Your task to perform on an android device: add a label to a message in the gmail app Image 0: 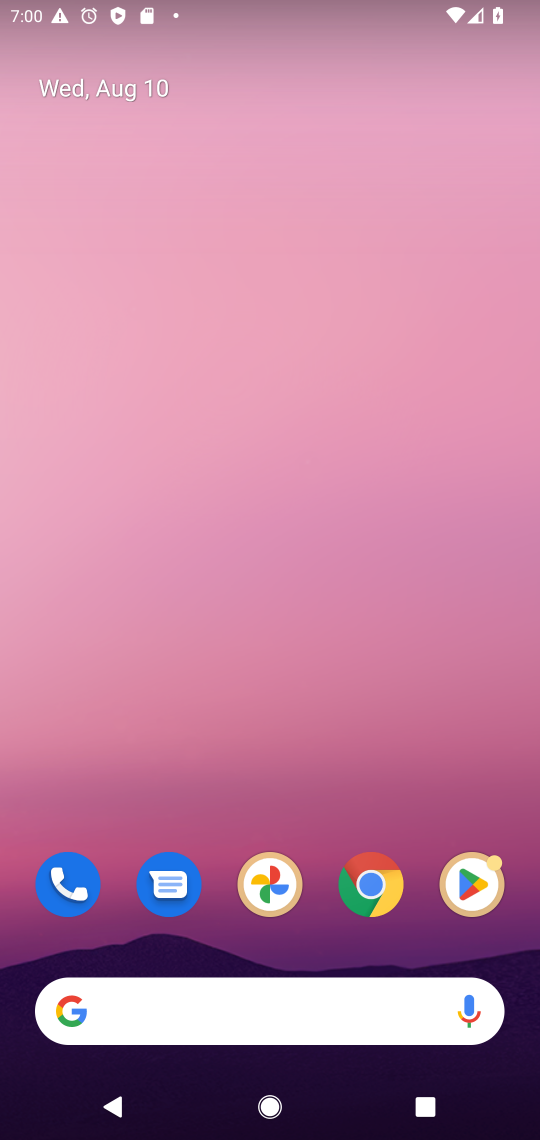
Step 0: drag from (24, 1071) to (403, 173)
Your task to perform on an android device: add a label to a message in the gmail app Image 1: 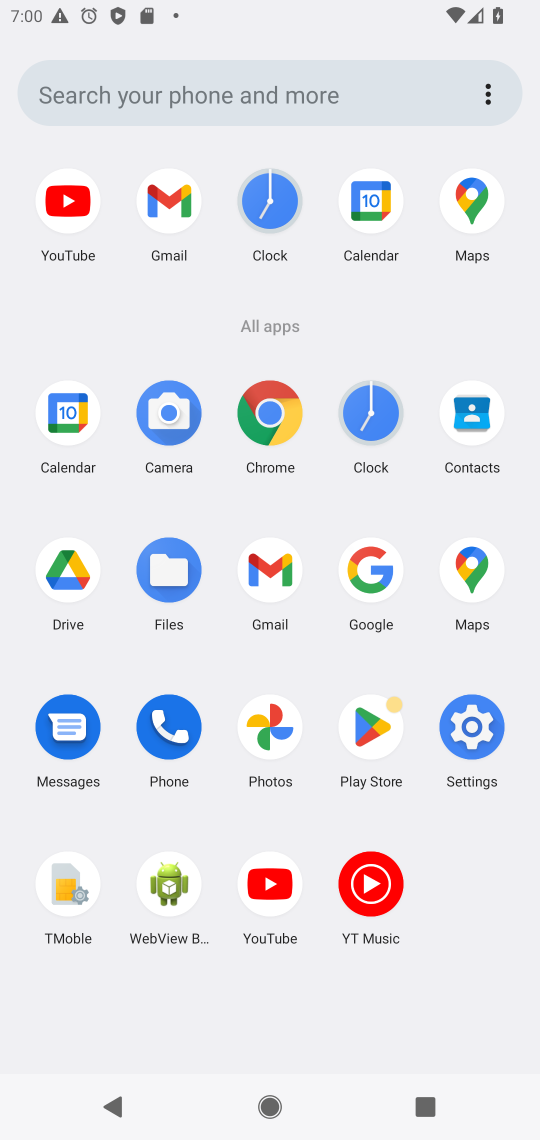
Step 1: click (258, 557)
Your task to perform on an android device: add a label to a message in the gmail app Image 2: 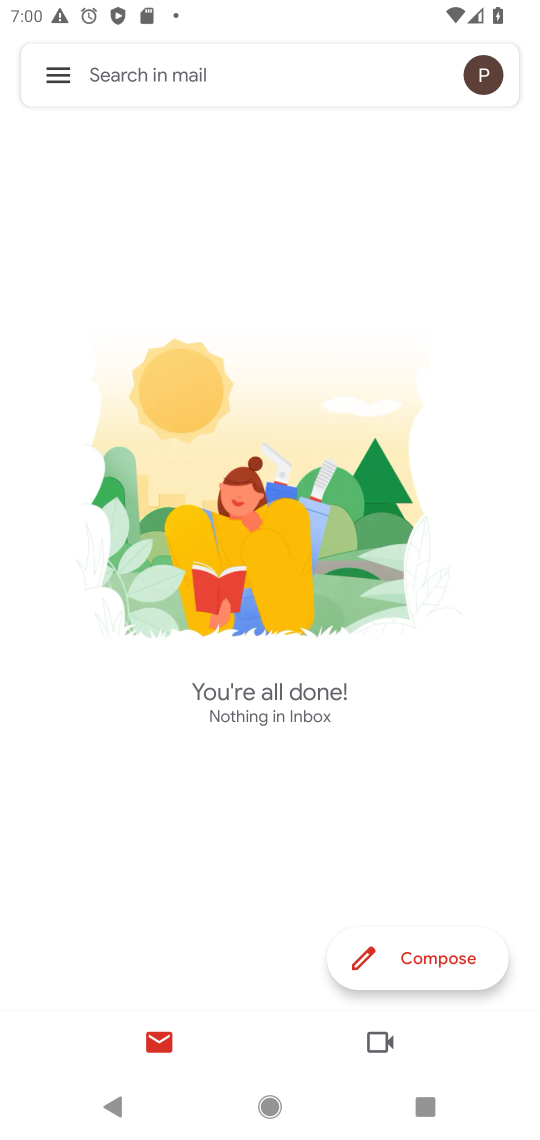
Step 2: click (67, 65)
Your task to perform on an android device: add a label to a message in the gmail app Image 3: 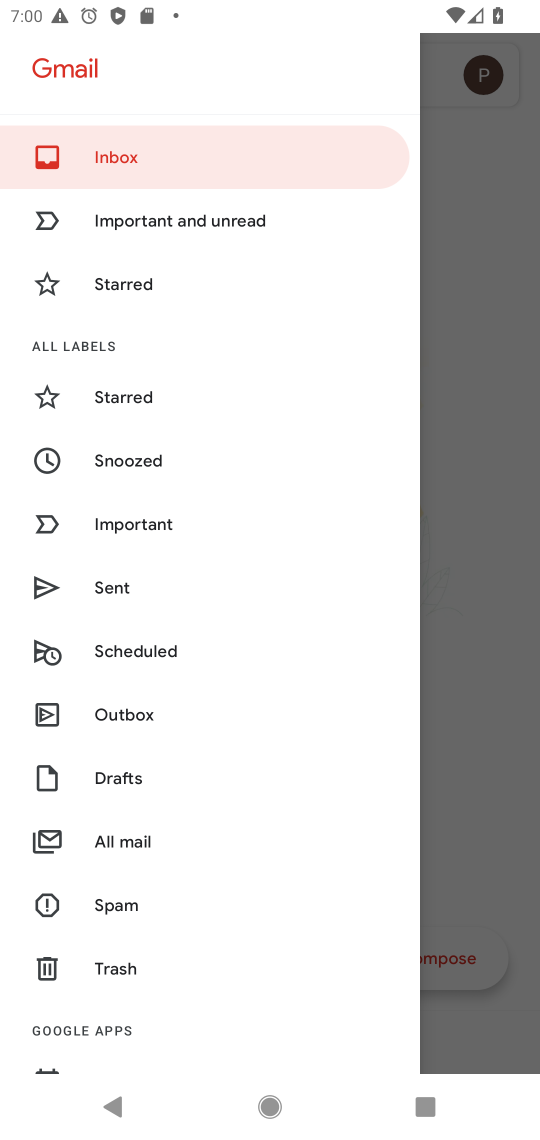
Step 3: click (99, 146)
Your task to perform on an android device: add a label to a message in the gmail app Image 4: 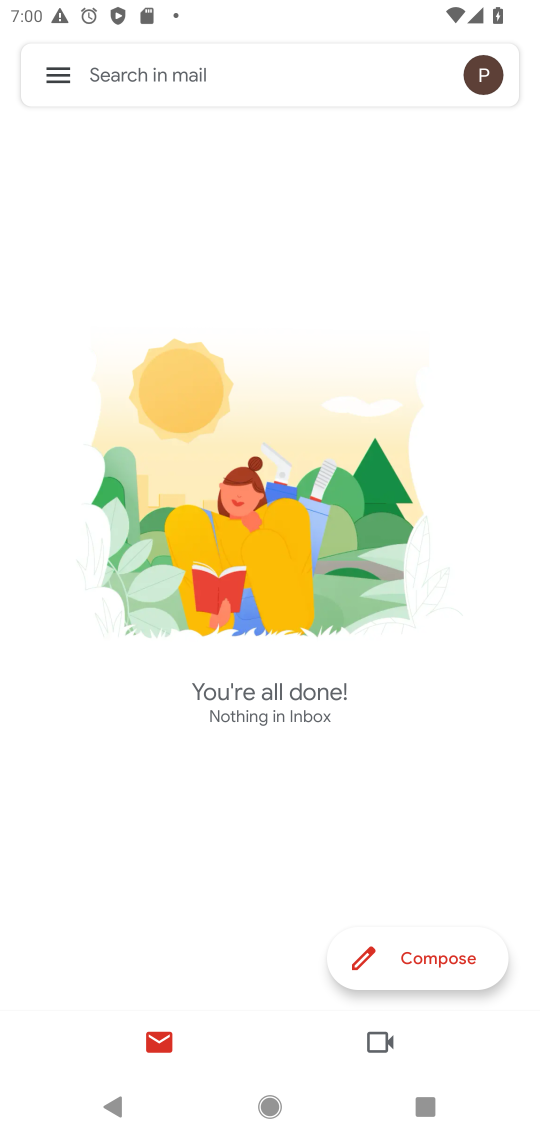
Step 4: task complete